Your task to perform on an android device: turn off translation in the chrome app Image 0: 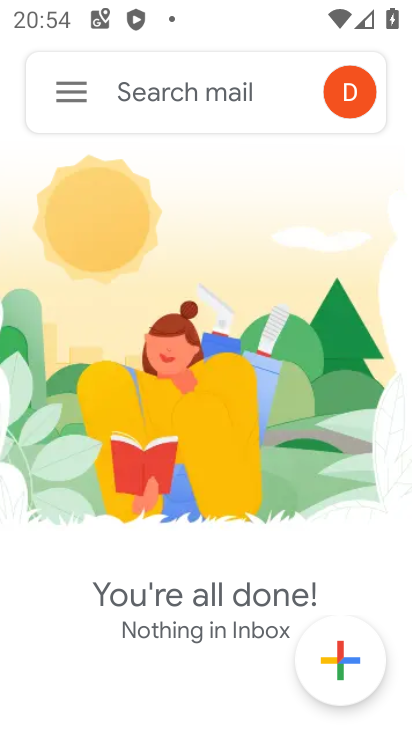
Step 0: press home button
Your task to perform on an android device: turn off translation in the chrome app Image 1: 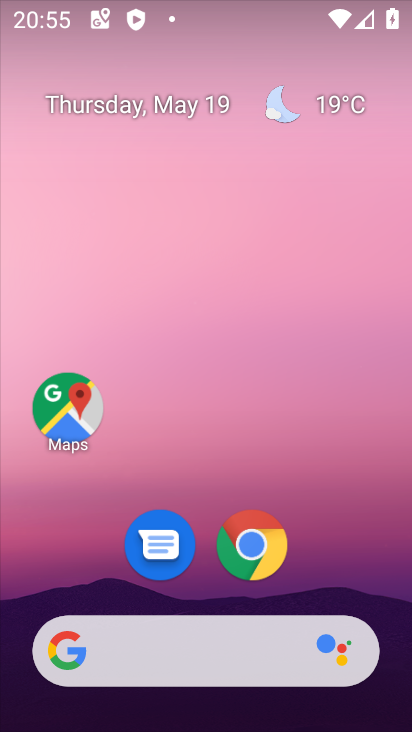
Step 1: click (256, 556)
Your task to perform on an android device: turn off translation in the chrome app Image 2: 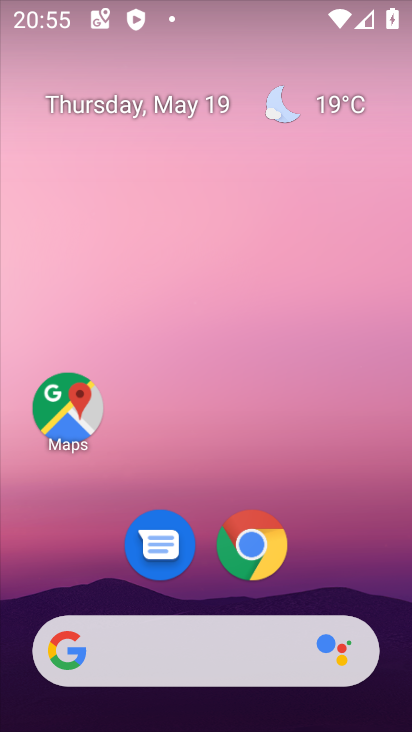
Step 2: click (250, 561)
Your task to perform on an android device: turn off translation in the chrome app Image 3: 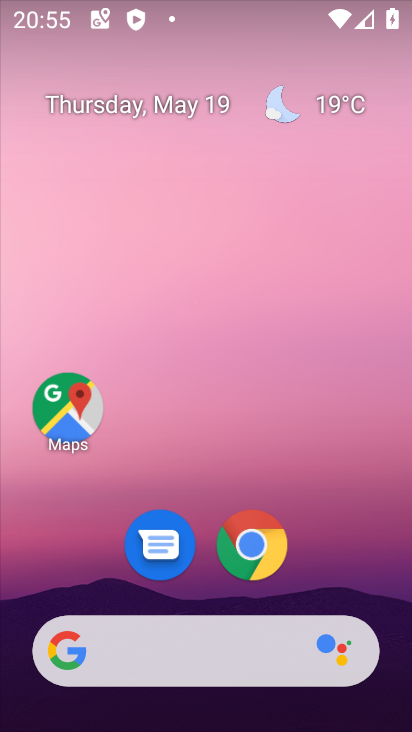
Step 3: click (250, 561)
Your task to perform on an android device: turn off translation in the chrome app Image 4: 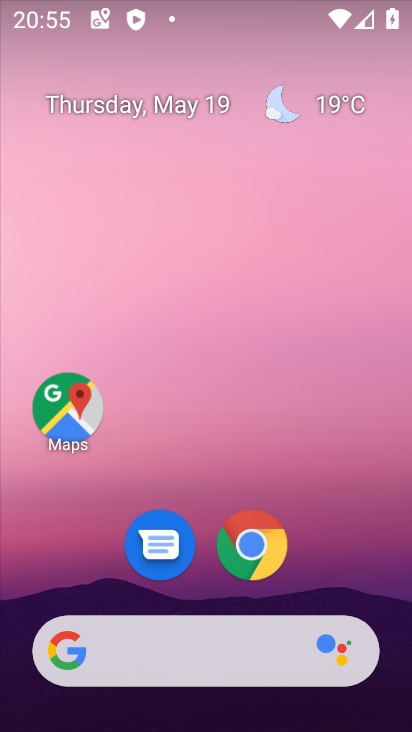
Step 4: click (268, 362)
Your task to perform on an android device: turn off translation in the chrome app Image 5: 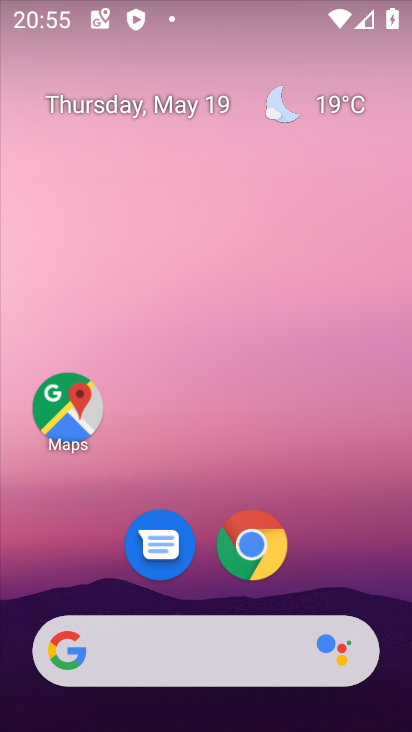
Step 5: click (242, 526)
Your task to perform on an android device: turn off translation in the chrome app Image 6: 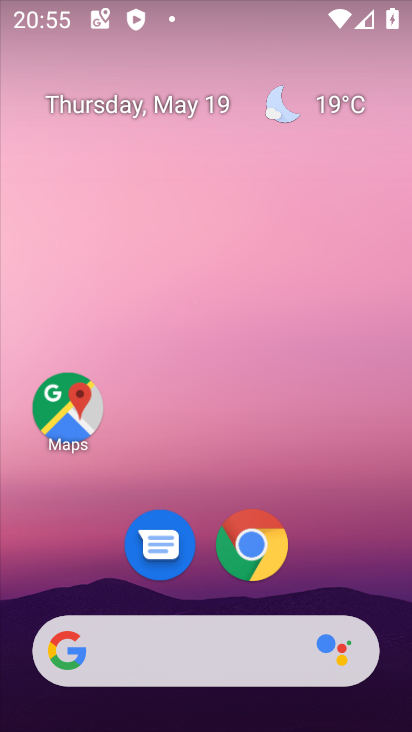
Step 6: click (242, 526)
Your task to perform on an android device: turn off translation in the chrome app Image 7: 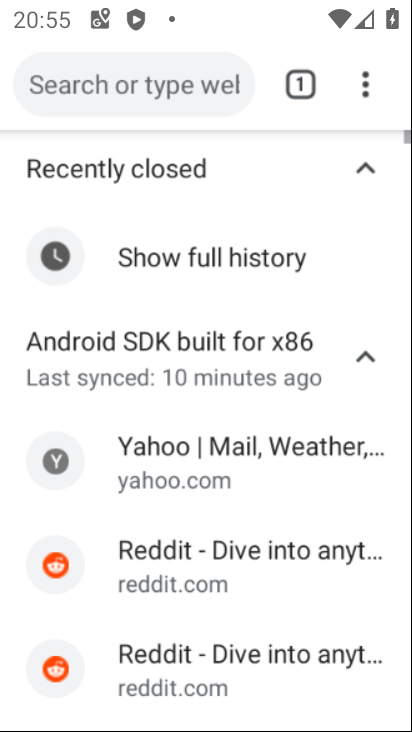
Step 7: click (242, 526)
Your task to perform on an android device: turn off translation in the chrome app Image 8: 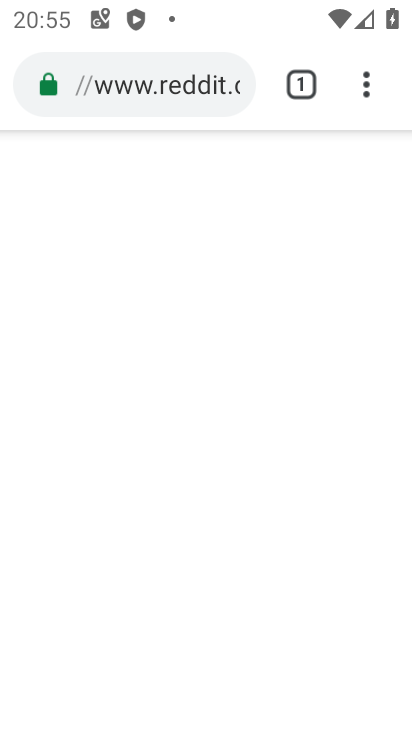
Step 8: press home button
Your task to perform on an android device: turn off translation in the chrome app Image 9: 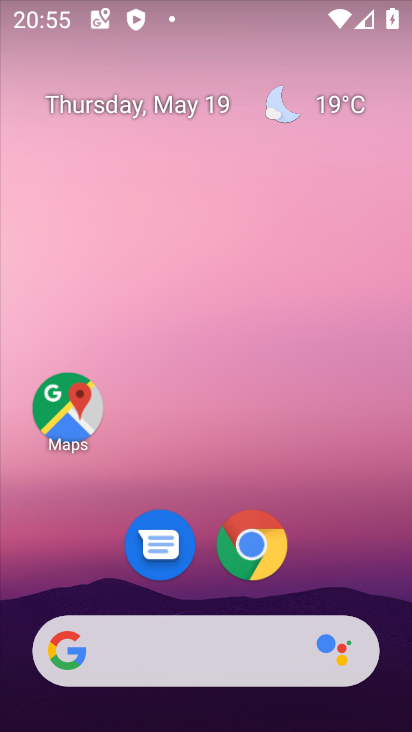
Step 9: click (278, 560)
Your task to perform on an android device: turn off translation in the chrome app Image 10: 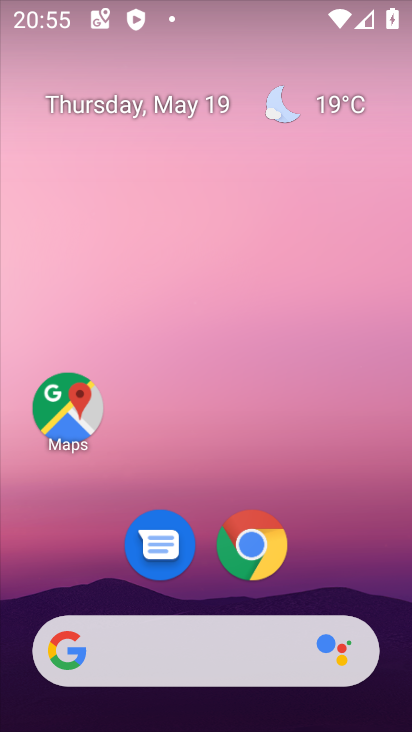
Step 10: click (271, 538)
Your task to perform on an android device: turn off translation in the chrome app Image 11: 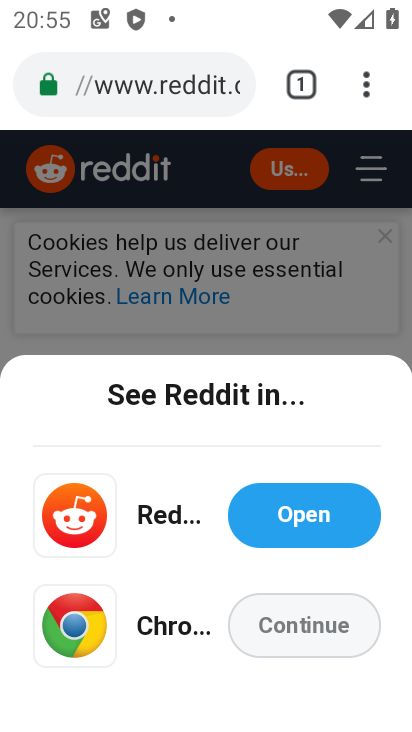
Step 11: click (366, 86)
Your task to perform on an android device: turn off translation in the chrome app Image 12: 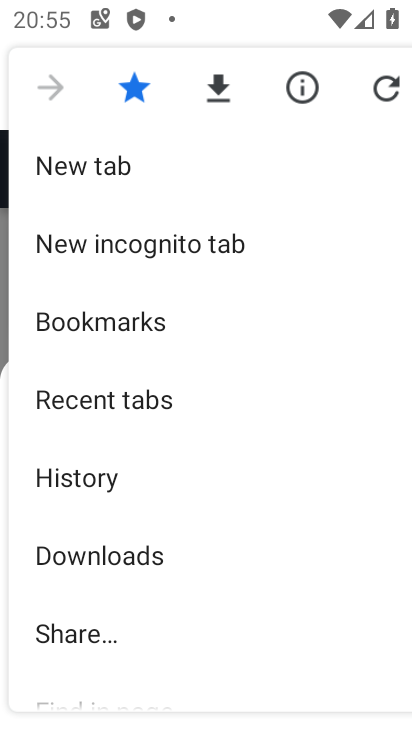
Step 12: drag from (141, 577) to (193, 336)
Your task to perform on an android device: turn off translation in the chrome app Image 13: 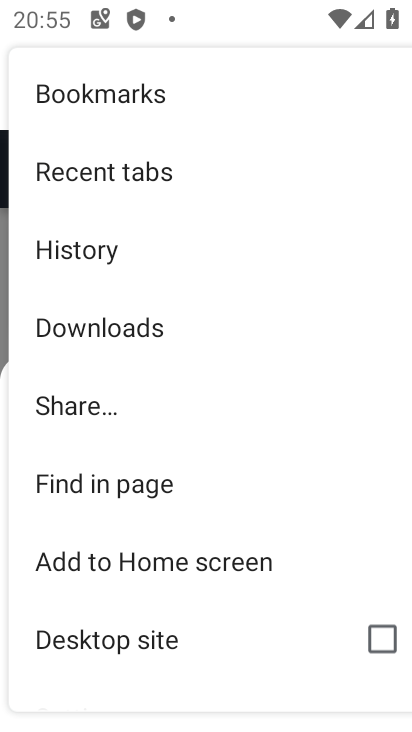
Step 13: drag from (124, 636) to (169, 425)
Your task to perform on an android device: turn off translation in the chrome app Image 14: 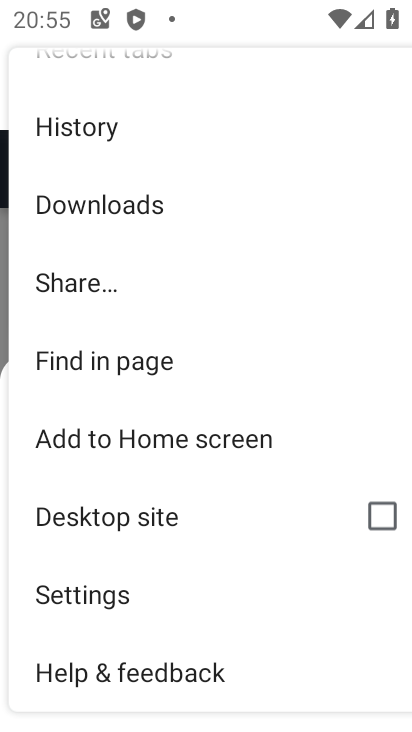
Step 14: click (106, 578)
Your task to perform on an android device: turn off translation in the chrome app Image 15: 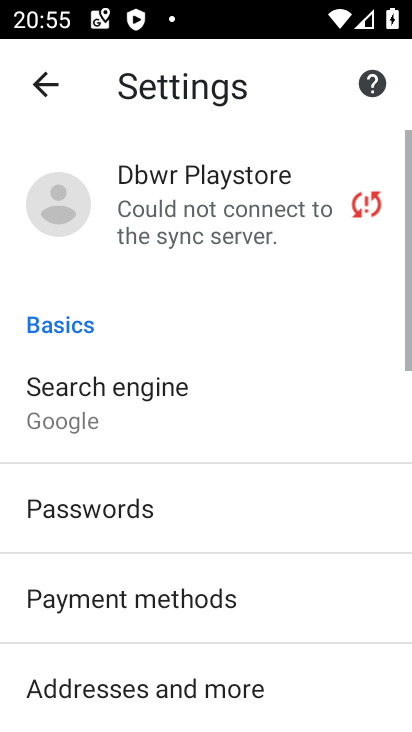
Step 15: drag from (106, 578) to (163, 206)
Your task to perform on an android device: turn off translation in the chrome app Image 16: 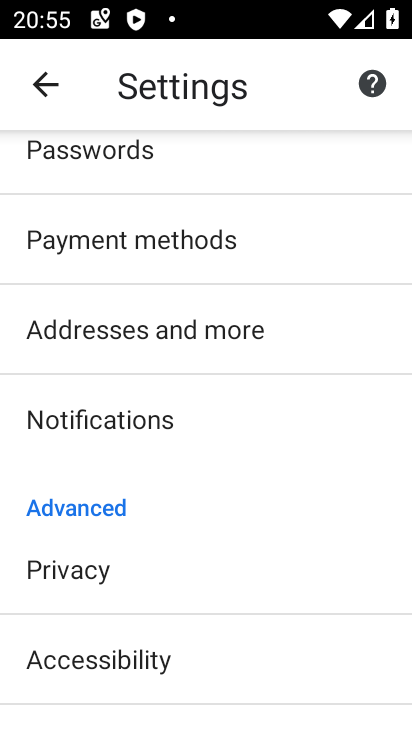
Step 16: drag from (143, 539) to (180, 309)
Your task to perform on an android device: turn off translation in the chrome app Image 17: 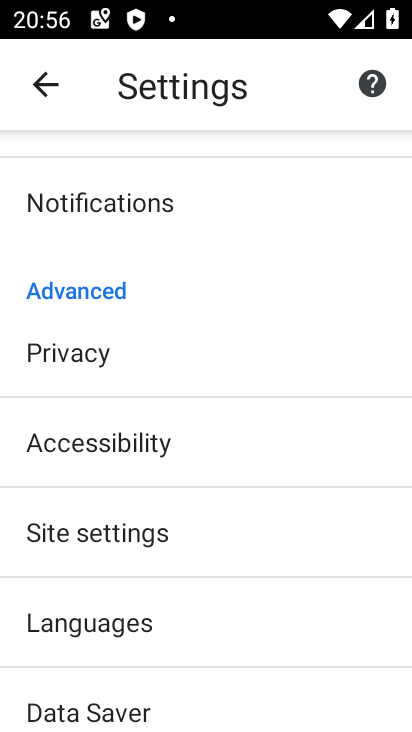
Step 17: click (109, 682)
Your task to perform on an android device: turn off translation in the chrome app Image 18: 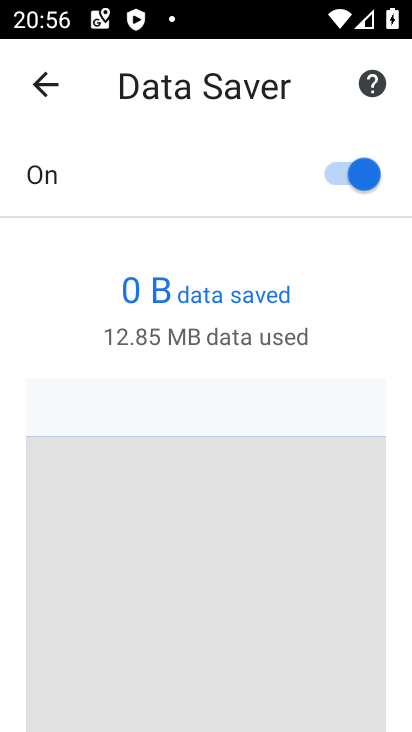
Step 18: click (332, 180)
Your task to perform on an android device: turn off translation in the chrome app Image 19: 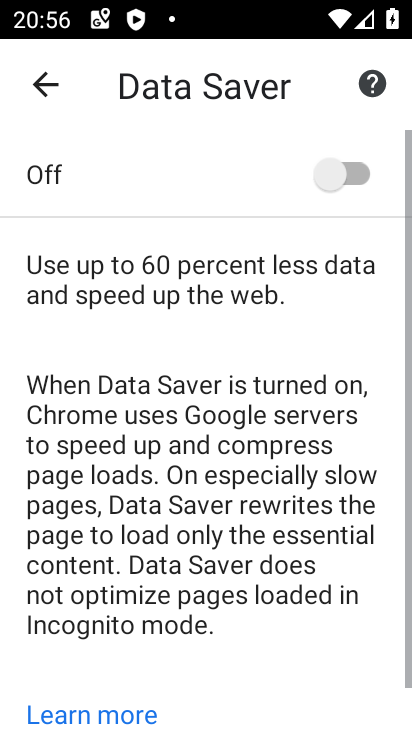
Step 19: task complete